Your task to perform on an android device: Go to Reddit.com Image 0: 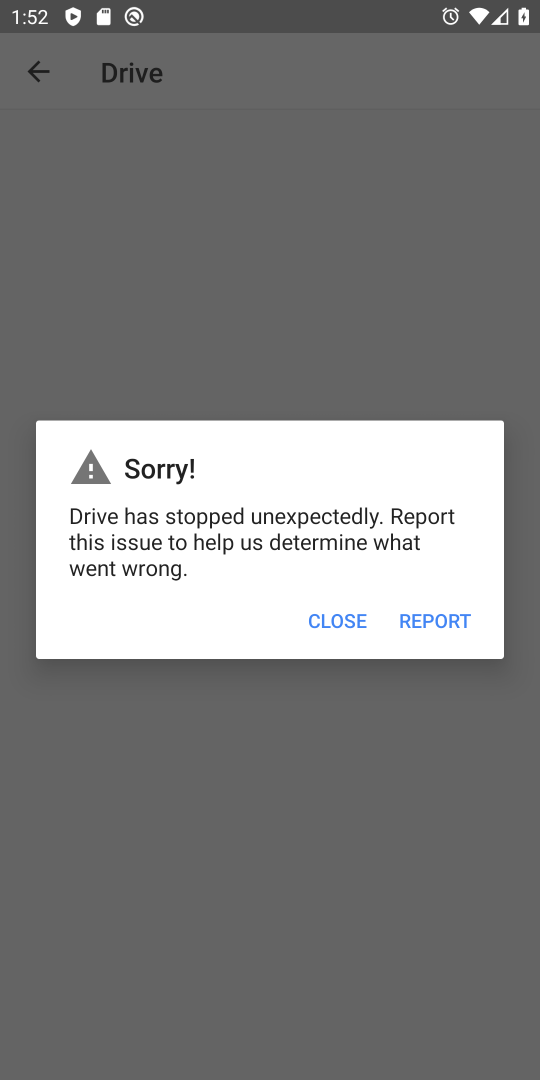
Step 0: press home button
Your task to perform on an android device: Go to Reddit.com Image 1: 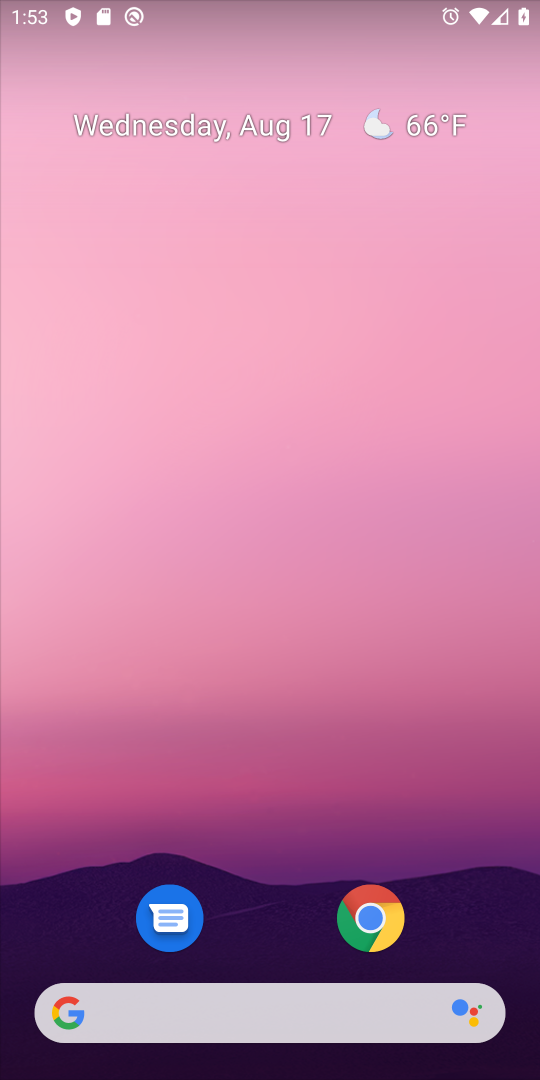
Step 1: click (350, 900)
Your task to perform on an android device: Go to Reddit.com Image 2: 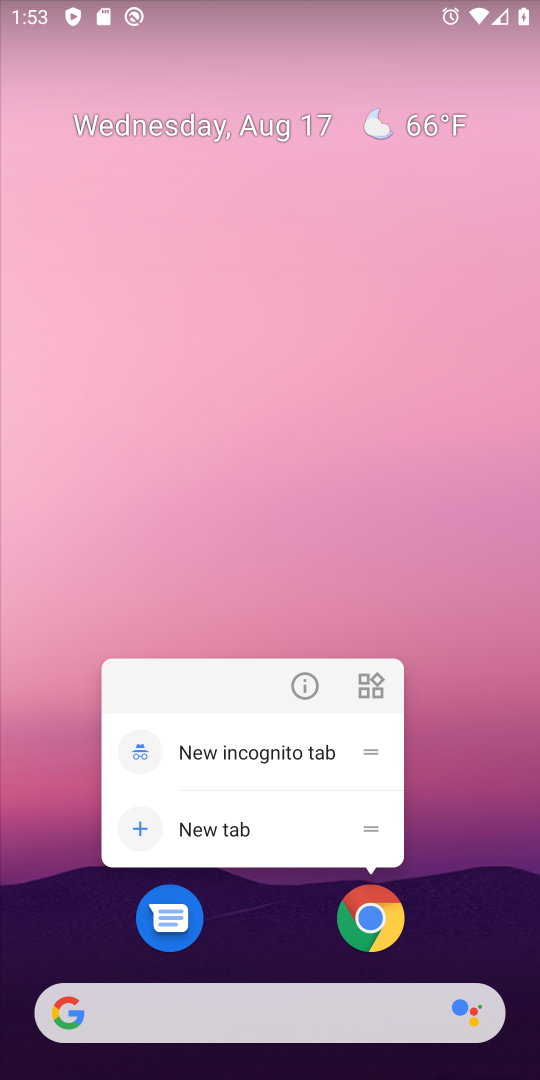
Step 2: click (350, 900)
Your task to perform on an android device: Go to Reddit.com Image 3: 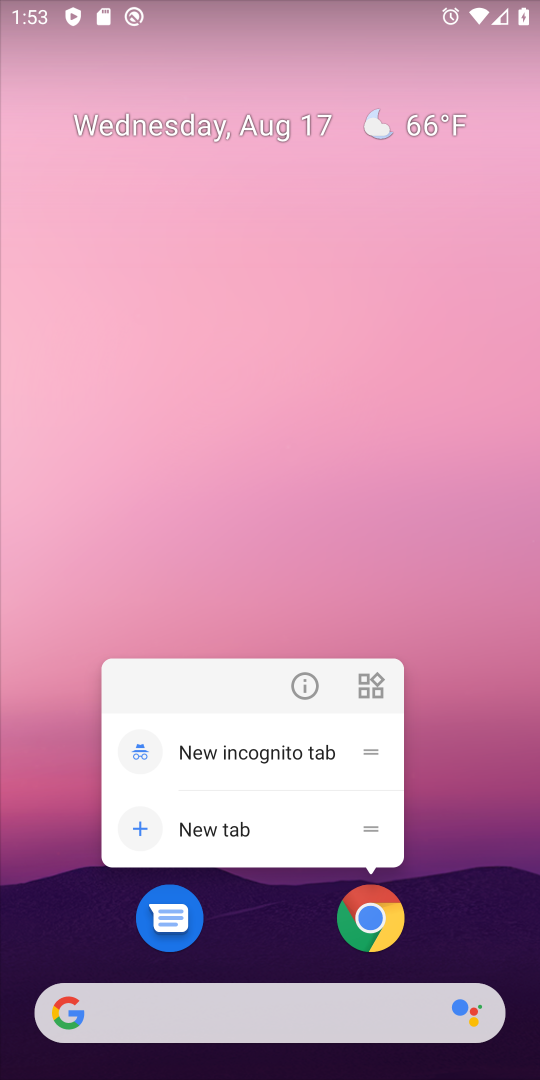
Step 3: click (344, 909)
Your task to perform on an android device: Go to Reddit.com Image 4: 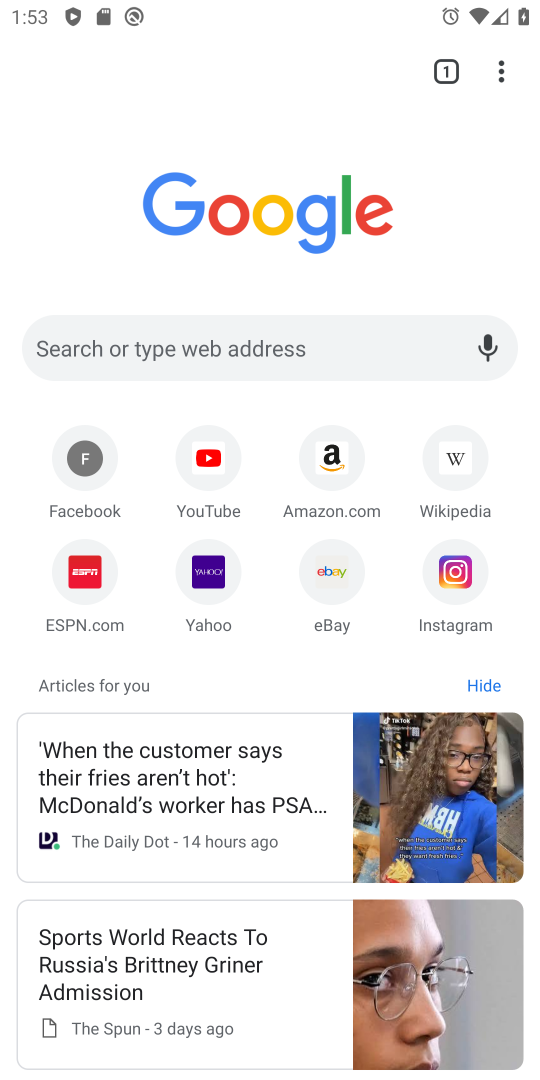
Step 4: click (242, 335)
Your task to perform on an android device: Go to Reddit.com Image 5: 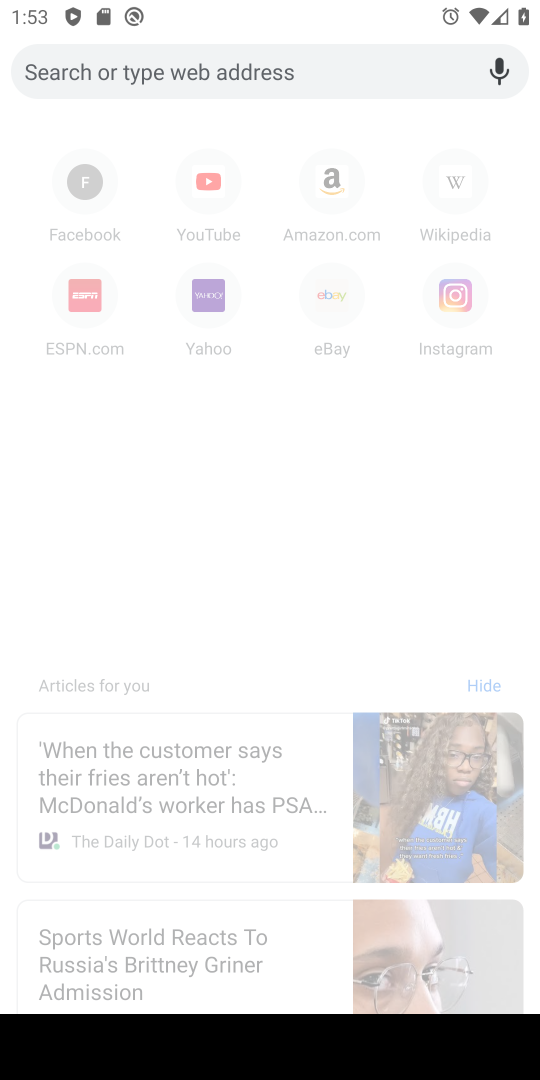
Step 5: type "reddit.com"
Your task to perform on an android device: Go to Reddit.com Image 6: 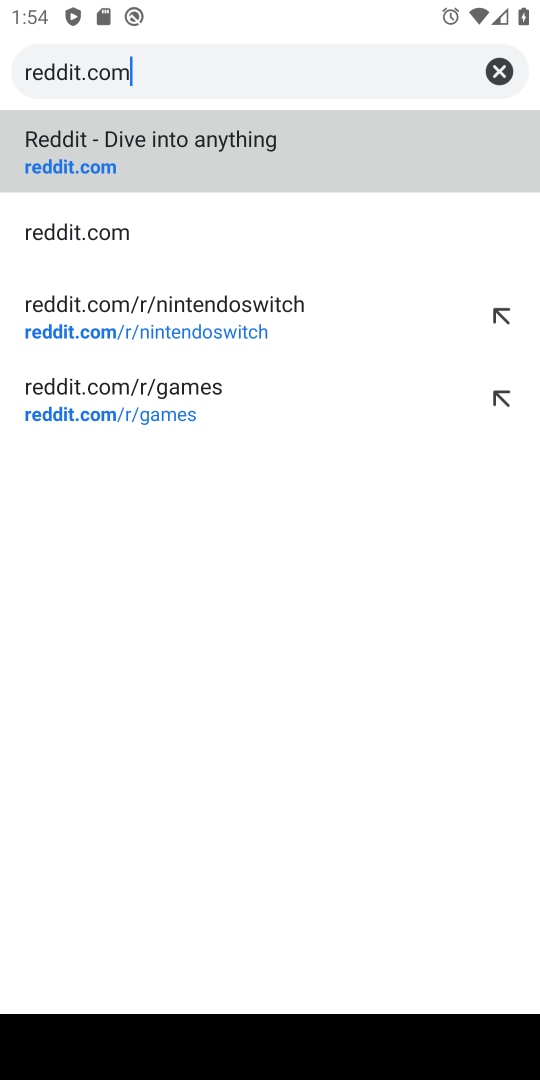
Step 6: click (308, 151)
Your task to perform on an android device: Go to Reddit.com Image 7: 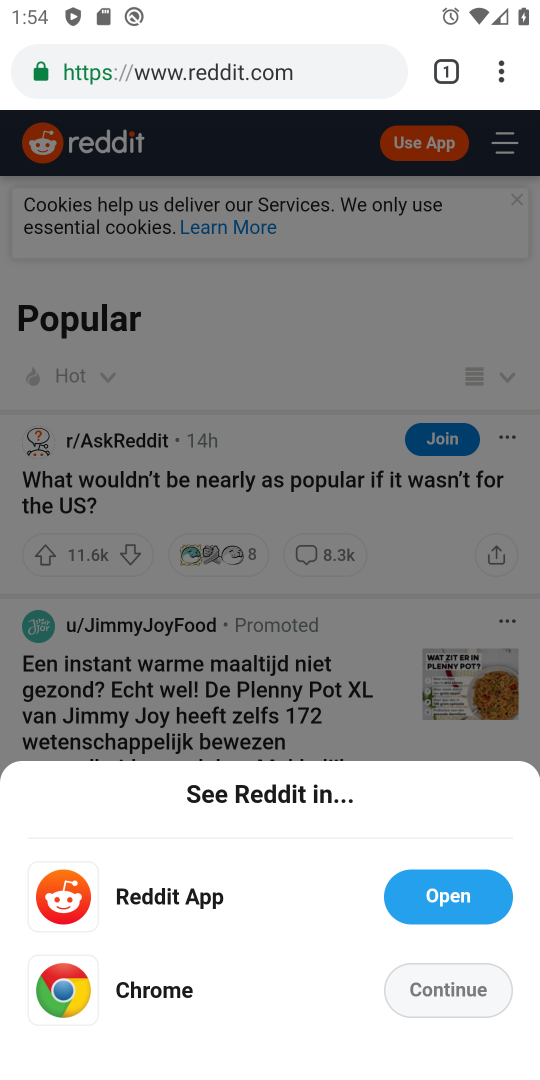
Step 7: task complete